Your task to perform on an android device: Search for Italian restaurants on Maps Image 0: 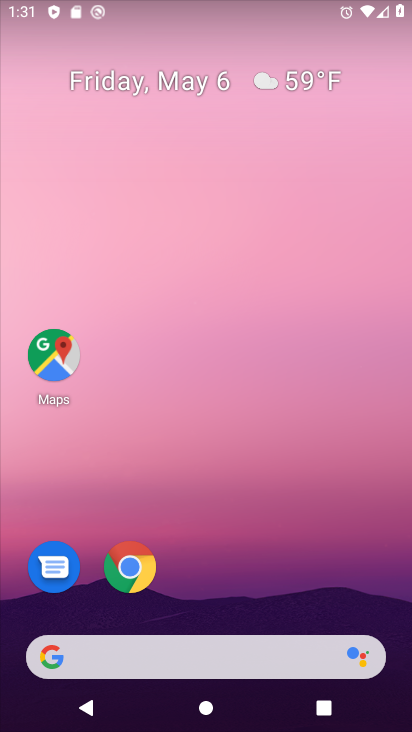
Step 0: click (47, 338)
Your task to perform on an android device: Search for Italian restaurants on Maps Image 1: 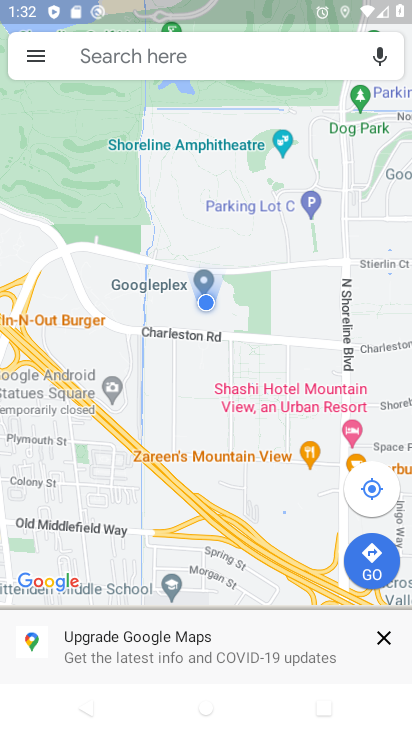
Step 1: click (189, 50)
Your task to perform on an android device: Search for Italian restaurants on Maps Image 2: 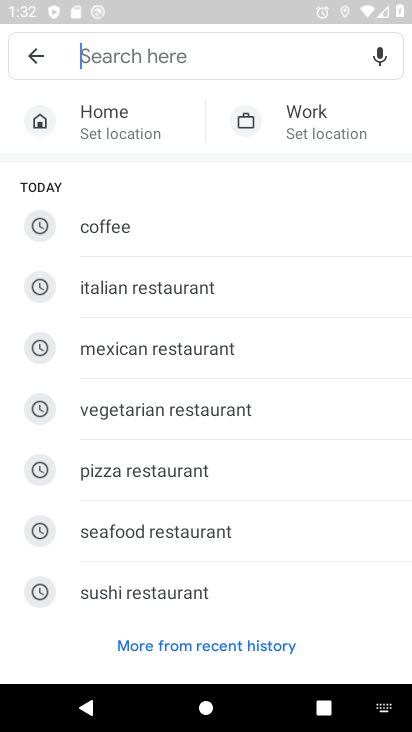
Step 2: click (157, 293)
Your task to perform on an android device: Search for Italian restaurants on Maps Image 3: 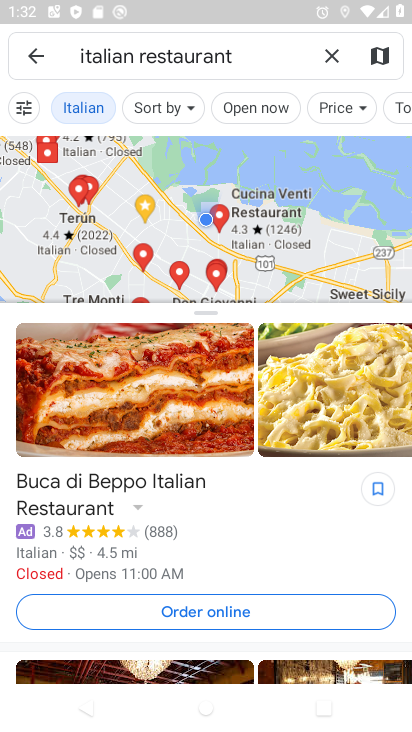
Step 3: task complete